Your task to perform on an android device: clear history in the chrome app Image 0: 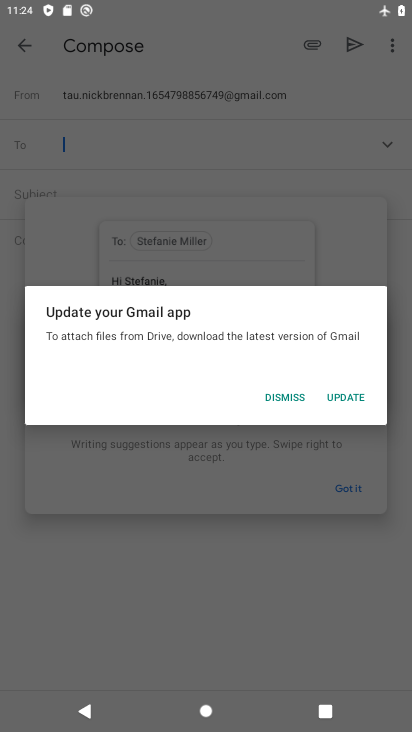
Step 0: press home button
Your task to perform on an android device: clear history in the chrome app Image 1: 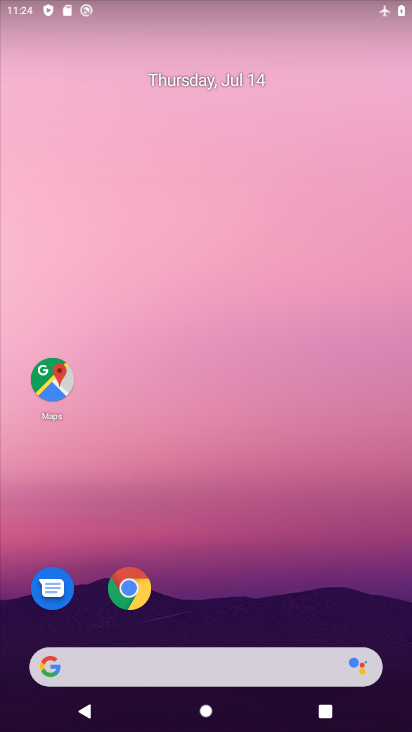
Step 1: click (131, 589)
Your task to perform on an android device: clear history in the chrome app Image 2: 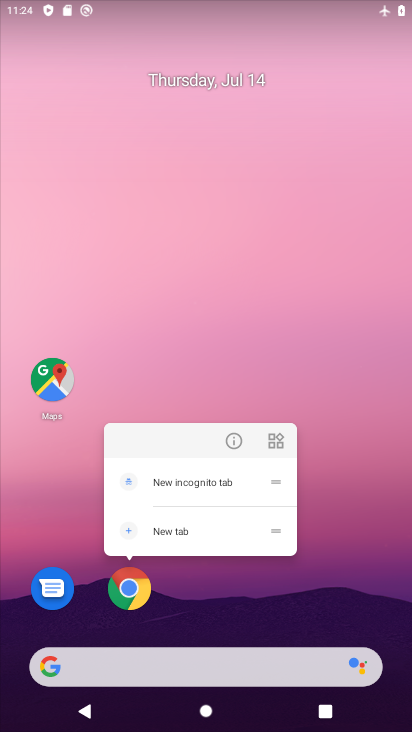
Step 2: click (141, 587)
Your task to perform on an android device: clear history in the chrome app Image 3: 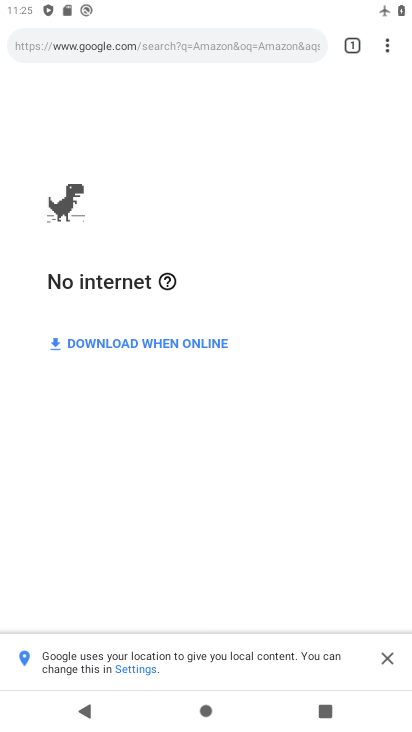
Step 3: click (389, 42)
Your task to perform on an android device: clear history in the chrome app Image 4: 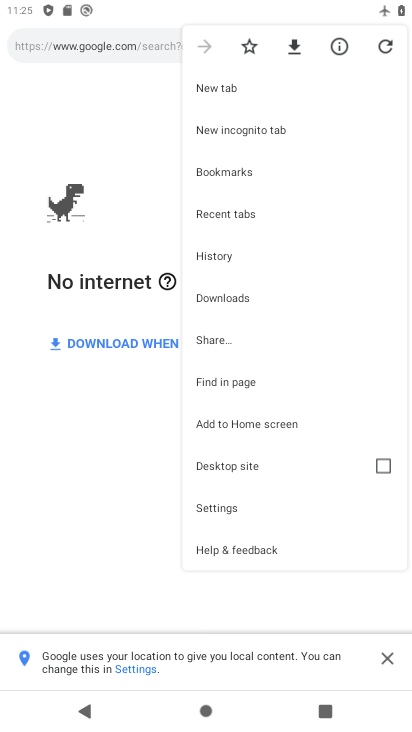
Step 4: click (224, 254)
Your task to perform on an android device: clear history in the chrome app Image 5: 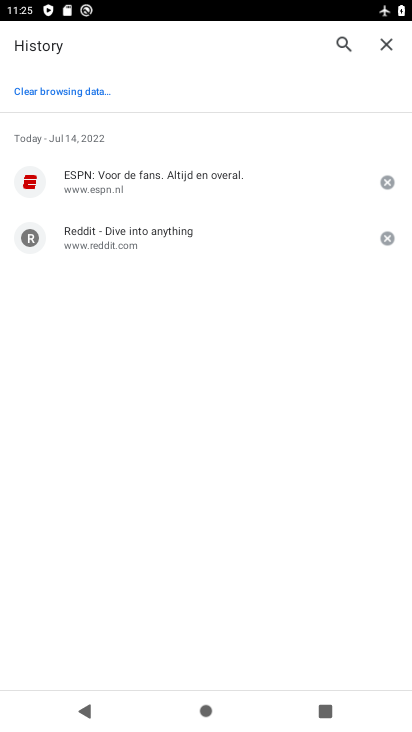
Step 5: click (77, 92)
Your task to perform on an android device: clear history in the chrome app Image 6: 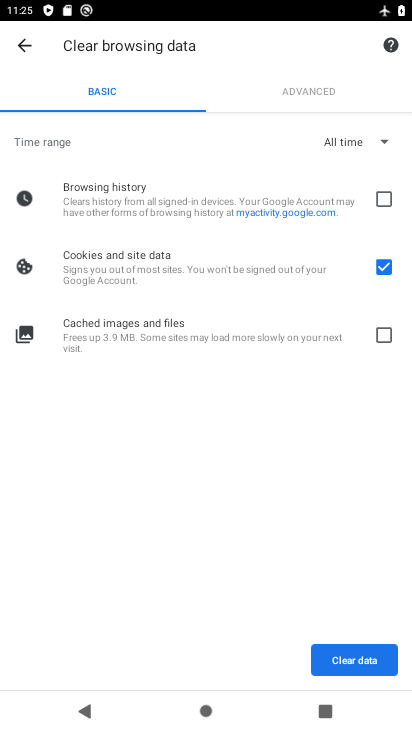
Step 6: click (385, 331)
Your task to perform on an android device: clear history in the chrome app Image 7: 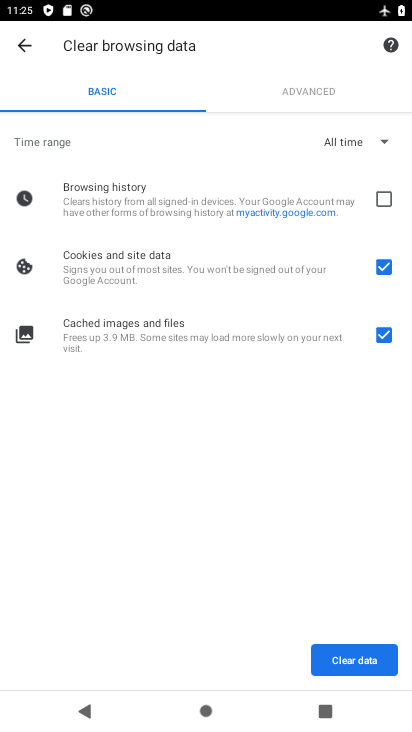
Step 7: click (382, 193)
Your task to perform on an android device: clear history in the chrome app Image 8: 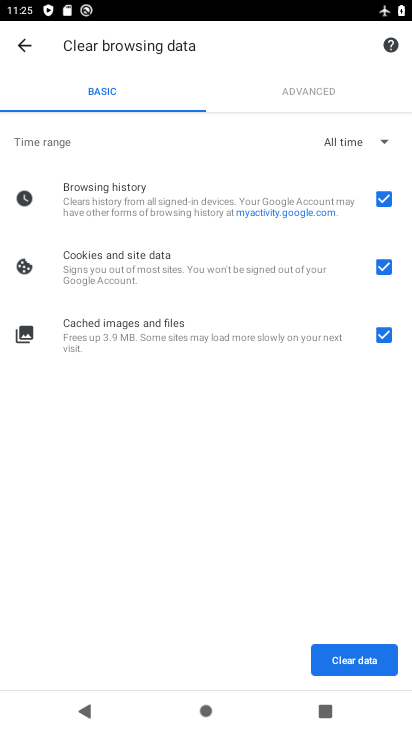
Step 8: click (349, 665)
Your task to perform on an android device: clear history in the chrome app Image 9: 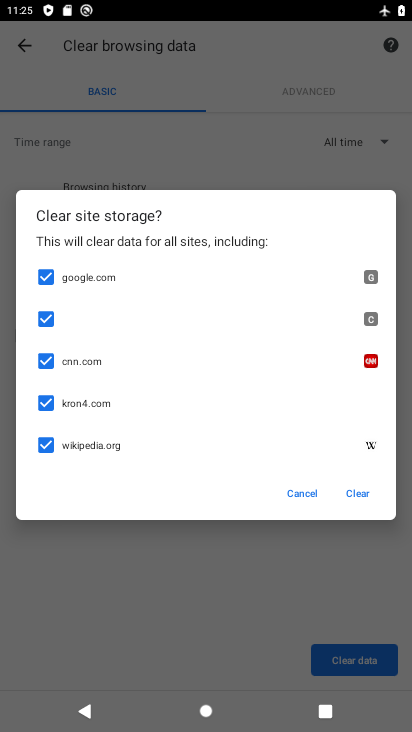
Step 9: click (342, 491)
Your task to perform on an android device: clear history in the chrome app Image 10: 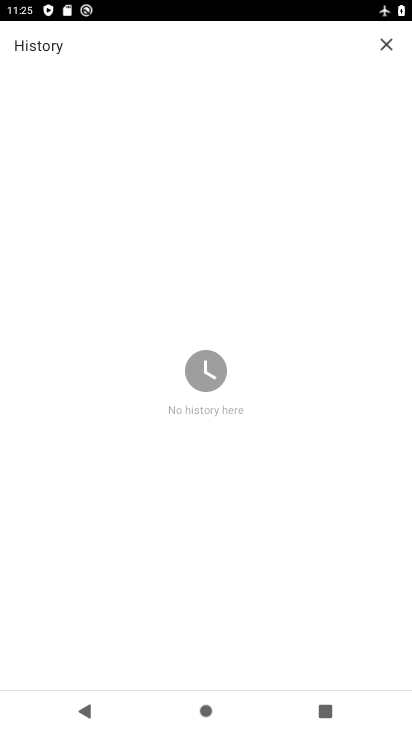
Step 10: task complete